Your task to perform on an android device: Open the web browser Image 0: 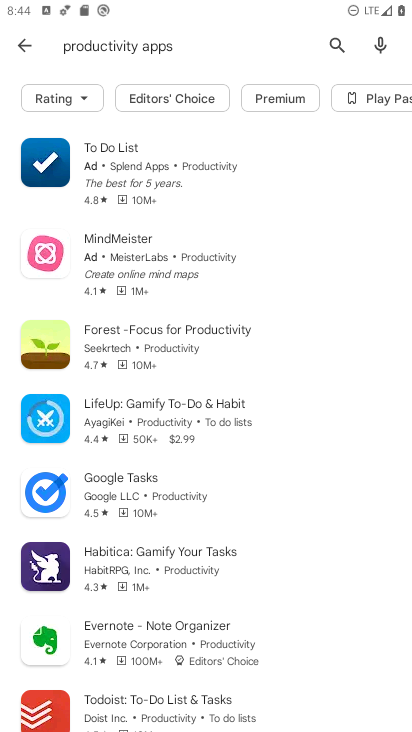
Step 0: press home button
Your task to perform on an android device: Open the web browser Image 1: 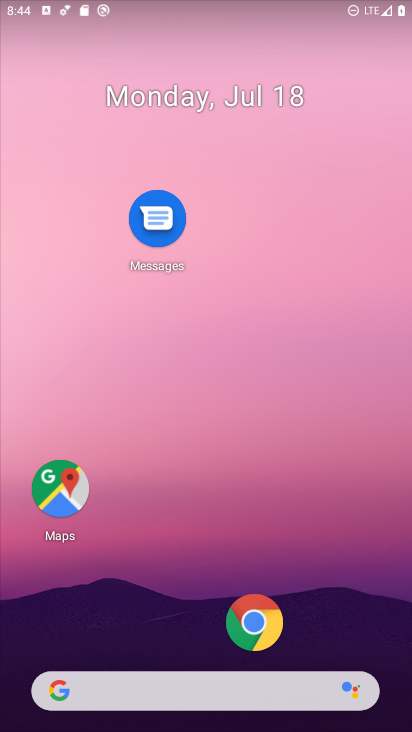
Step 1: drag from (187, 693) to (229, 103)
Your task to perform on an android device: Open the web browser Image 2: 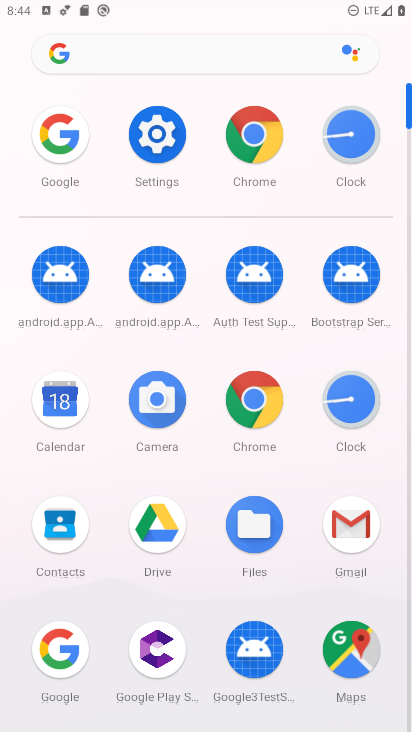
Step 2: click (253, 155)
Your task to perform on an android device: Open the web browser Image 3: 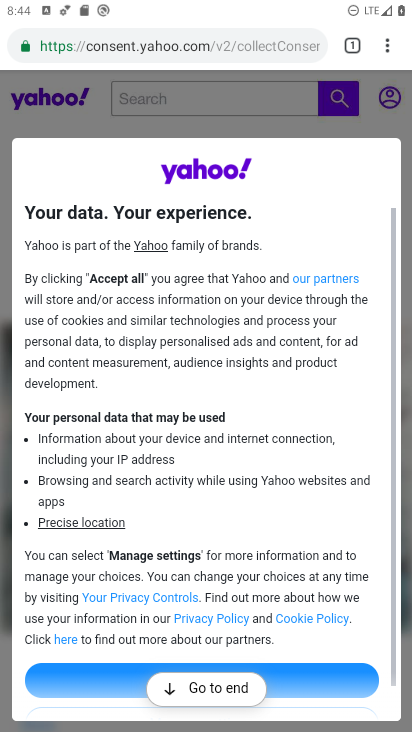
Step 3: task complete